Your task to perform on an android device: uninstall "Spotify" Image 0: 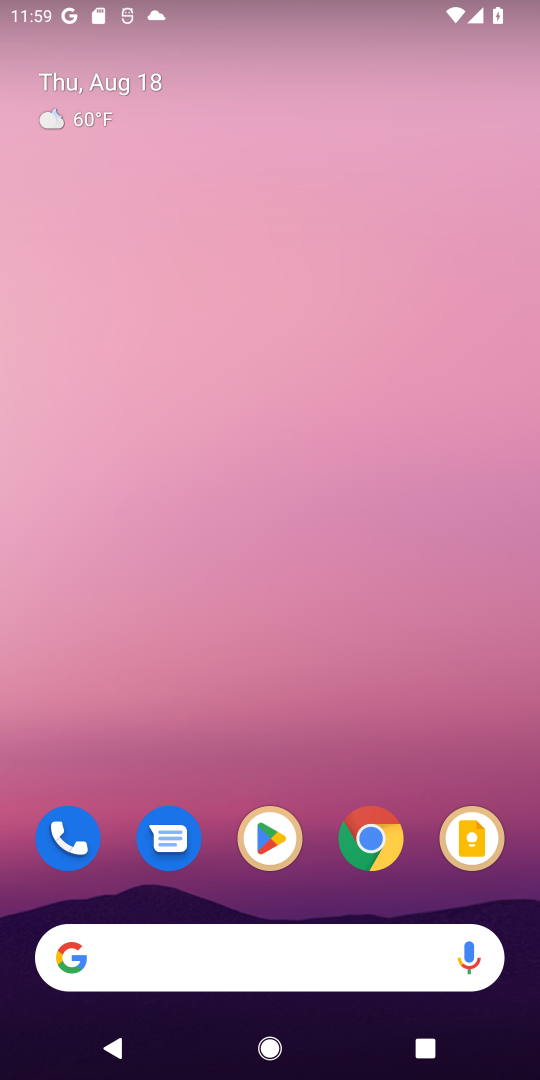
Step 0: click (290, 835)
Your task to perform on an android device: uninstall "Spotify" Image 1: 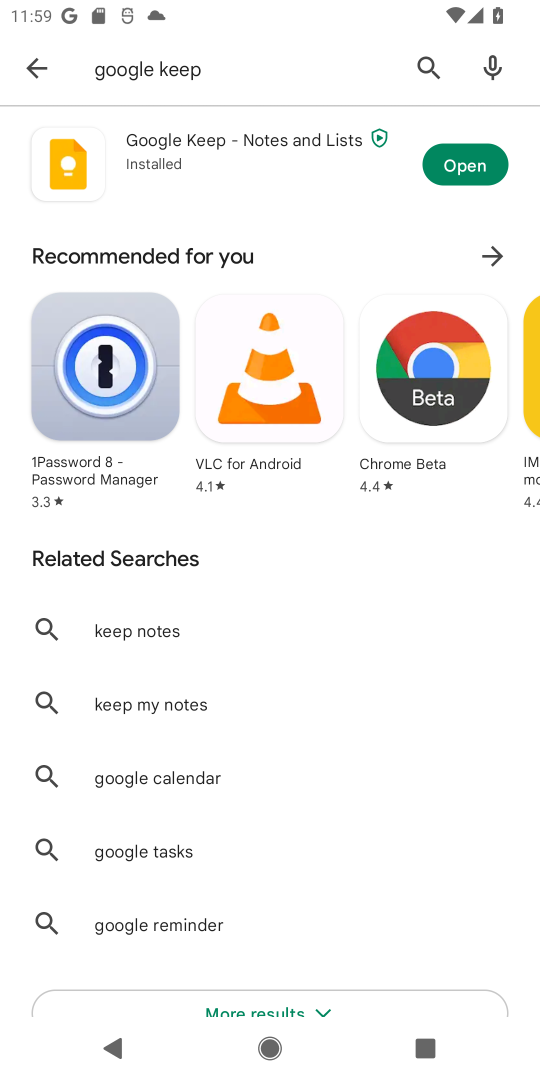
Step 1: click (420, 75)
Your task to perform on an android device: uninstall "Spotify" Image 2: 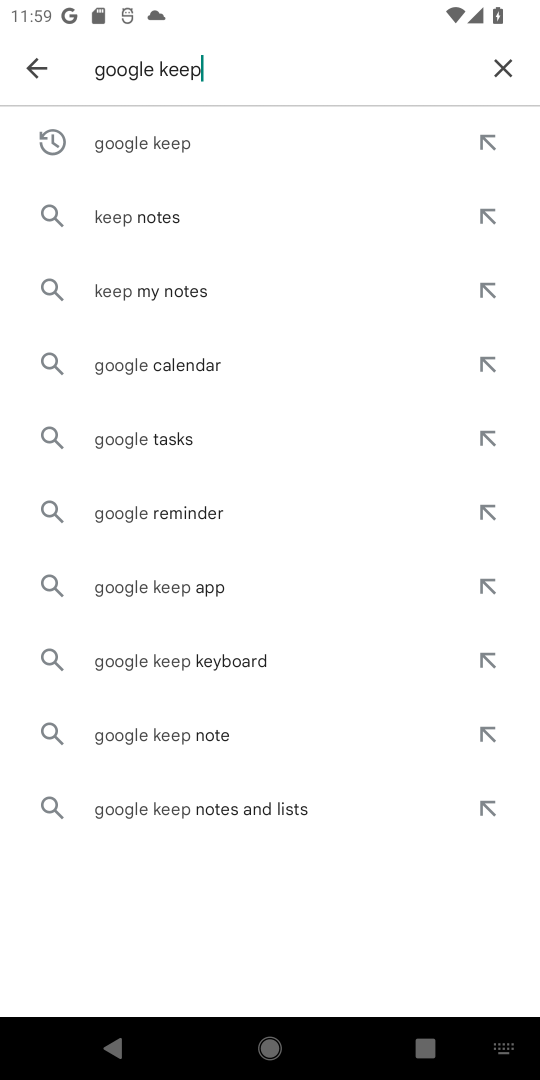
Step 2: click (505, 59)
Your task to perform on an android device: uninstall "Spotify" Image 3: 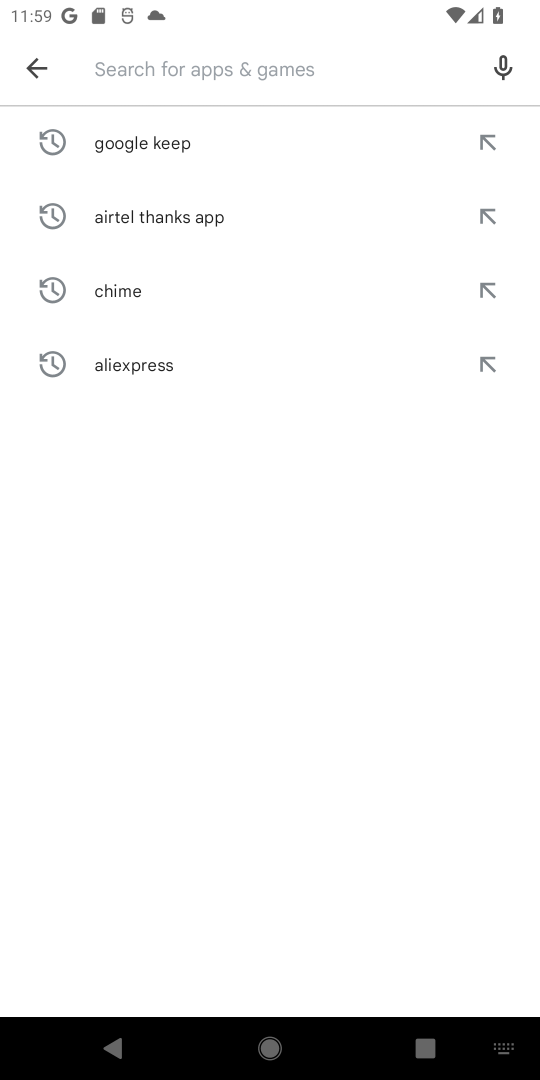
Step 3: type "Spotify"
Your task to perform on an android device: uninstall "Spotify" Image 4: 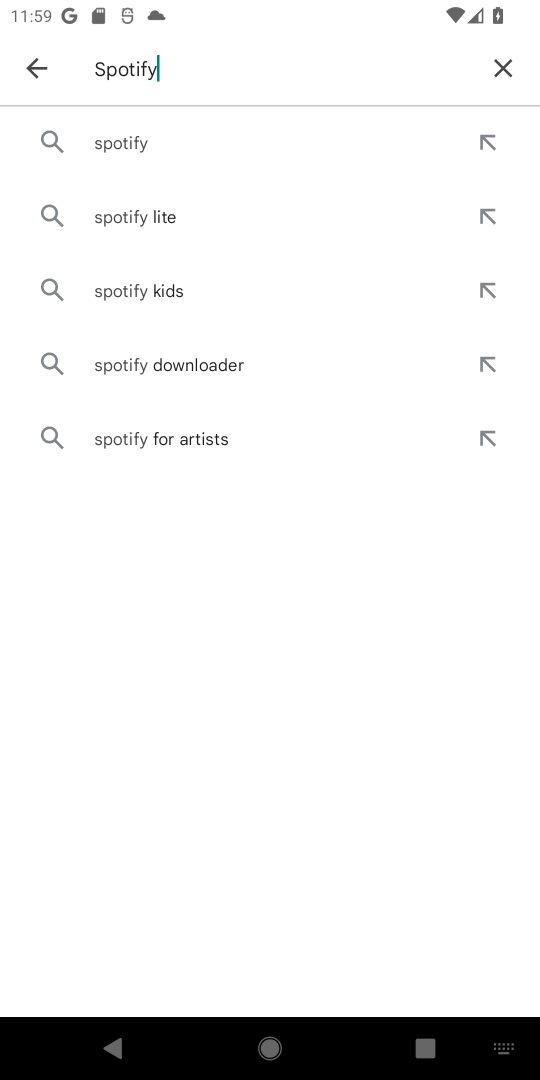
Step 4: click (171, 134)
Your task to perform on an android device: uninstall "Spotify" Image 5: 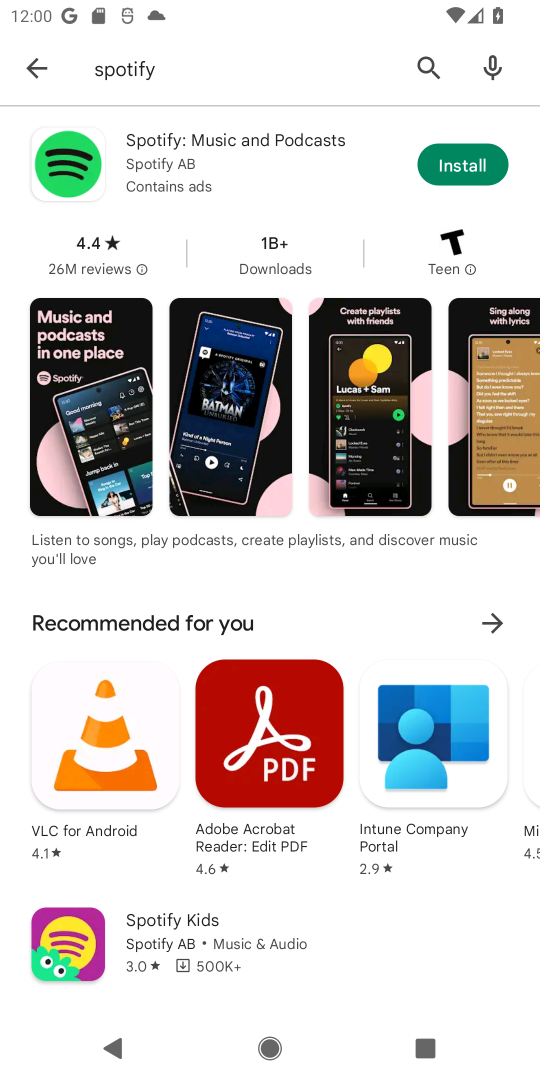
Step 5: task complete